Your task to perform on an android device: Open Youtube and go to the subscriptions tab Image 0: 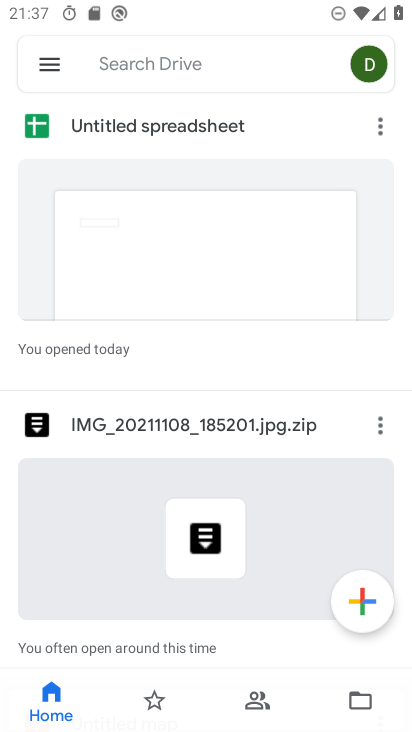
Step 0: press home button
Your task to perform on an android device: Open Youtube and go to the subscriptions tab Image 1: 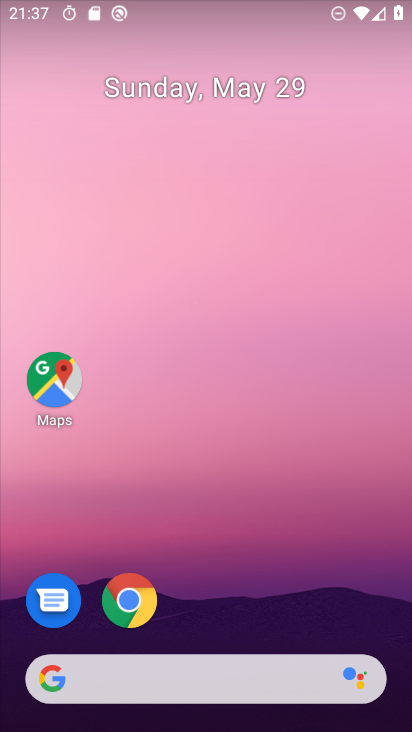
Step 1: drag from (290, 592) to (329, 221)
Your task to perform on an android device: Open Youtube and go to the subscriptions tab Image 2: 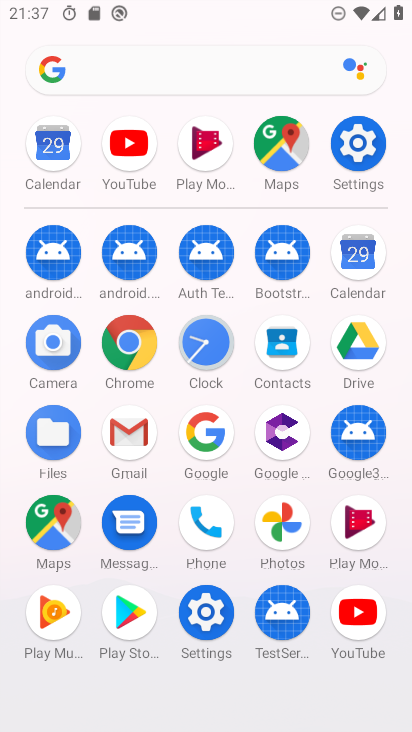
Step 2: click (356, 630)
Your task to perform on an android device: Open Youtube and go to the subscriptions tab Image 3: 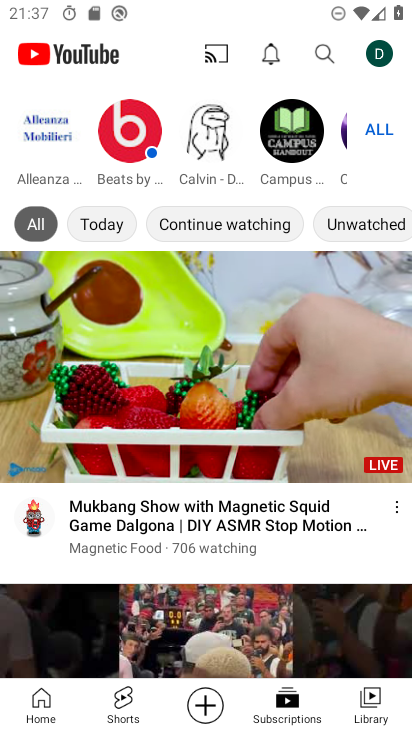
Step 3: task complete